Your task to perform on an android device: Add beats solo 3 to the cart on walmart, then select checkout. Image 0: 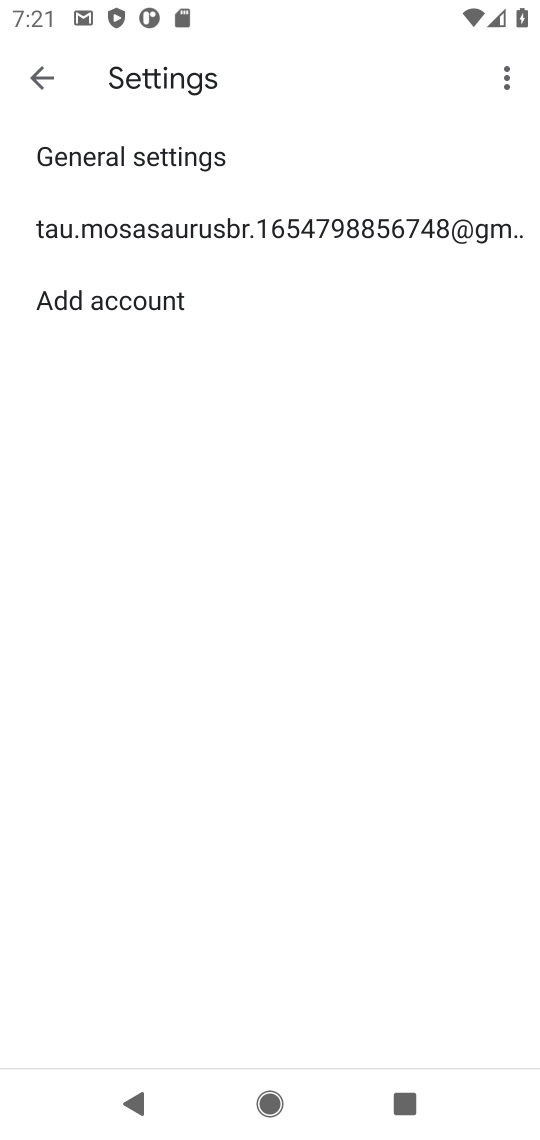
Step 0: press home button
Your task to perform on an android device: Add beats solo 3 to the cart on walmart, then select checkout. Image 1: 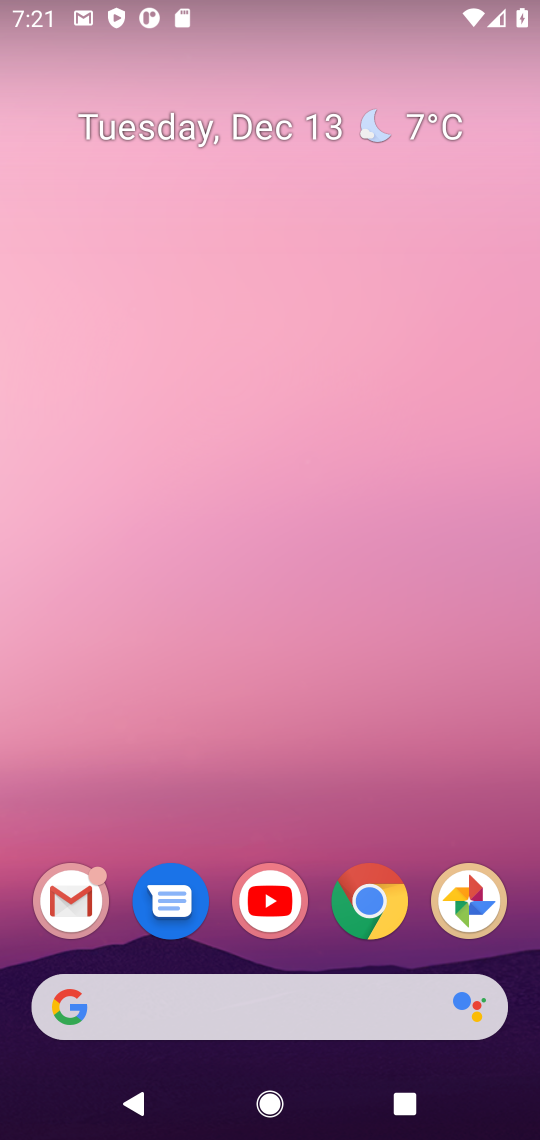
Step 1: click (372, 896)
Your task to perform on an android device: Add beats solo 3 to the cart on walmart, then select checkout. Image 2: 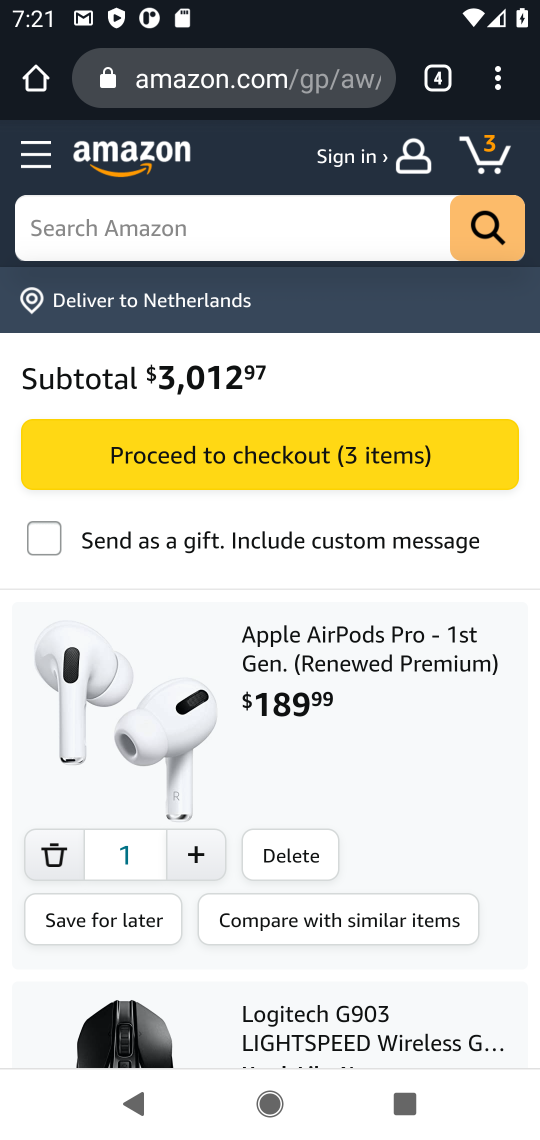
Step 2: click (435, 74)
Your task to perform on an android device: Add beats solo 3 to the cart on walmart, then select checkout. Image 3: 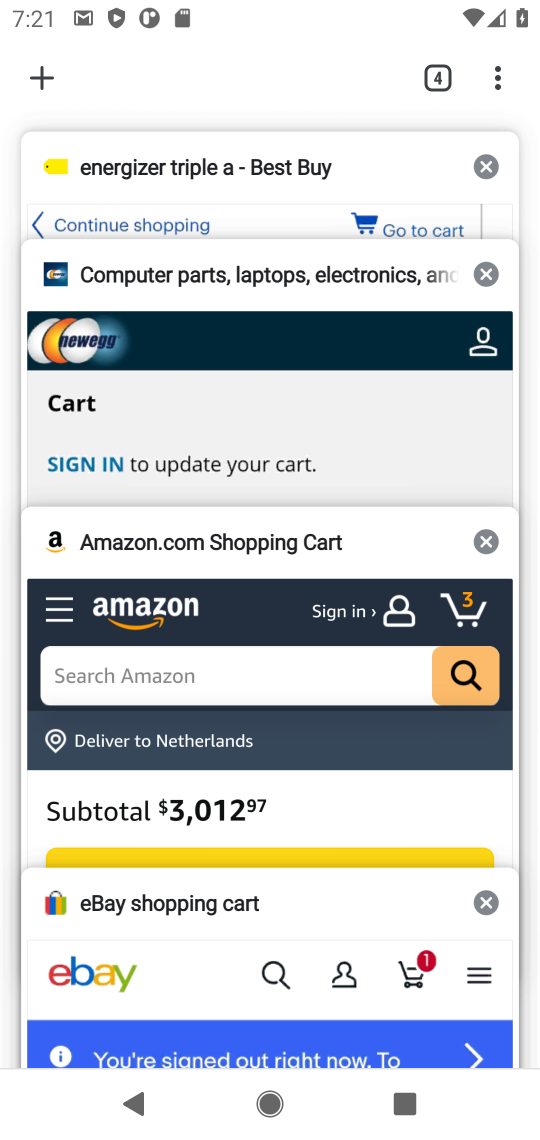
Step 3: click (33, 75)
Your task to perform on an android device: Add beats solo 3 to the cart on walmart, then select checkout. Image 4: 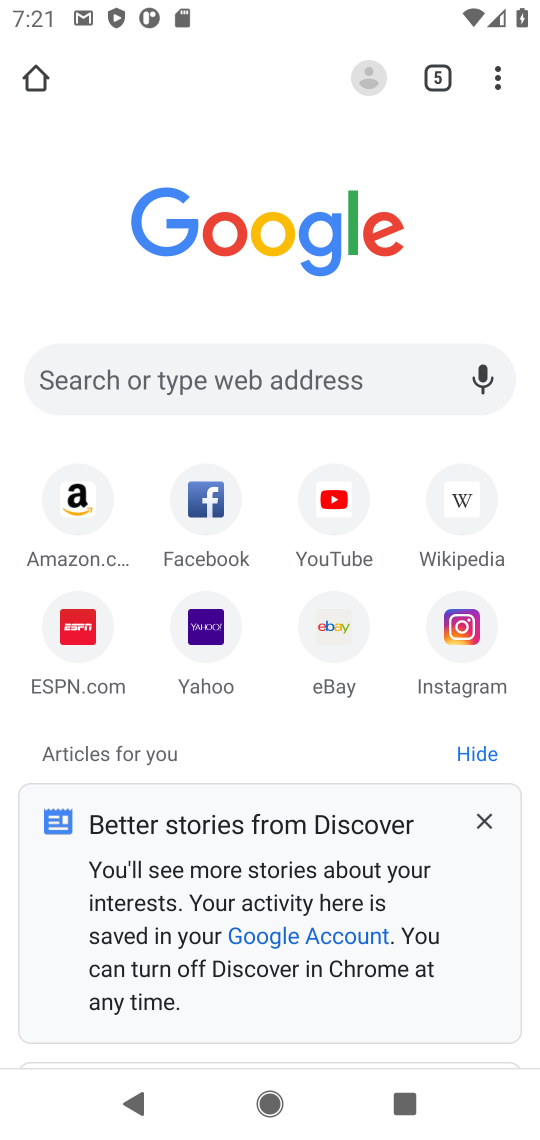
Step 4: click (193, 371)
Your task to perform on an android device: Add beats solo 3 to the cart on walmart, then select checkout. Image 5: 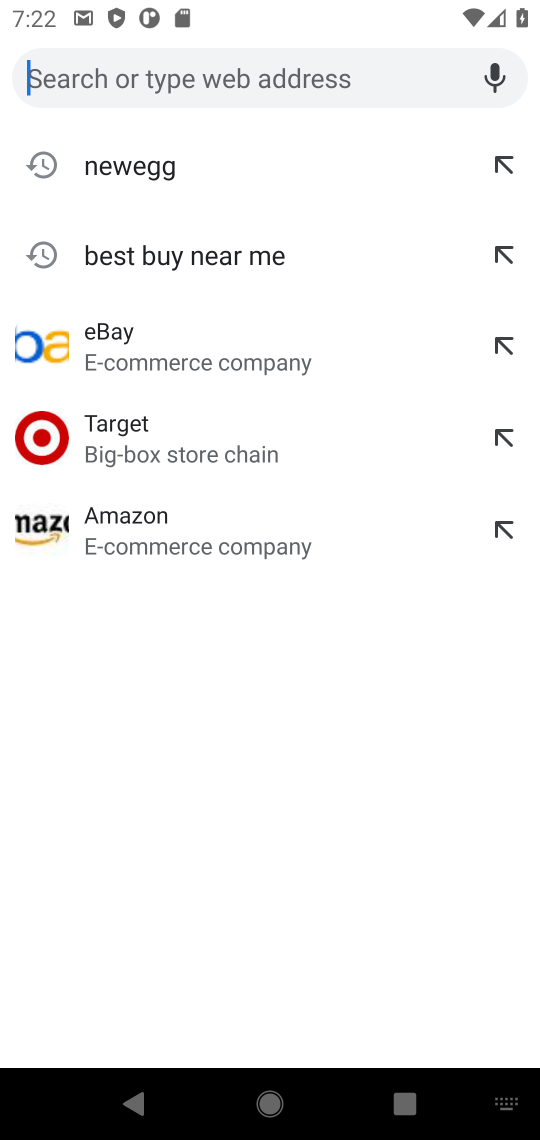
Step 5: type "walmart"
Your task to perform on an android device: Add beats solo 3 to the cart on walmart, then select checkout. Image 6: 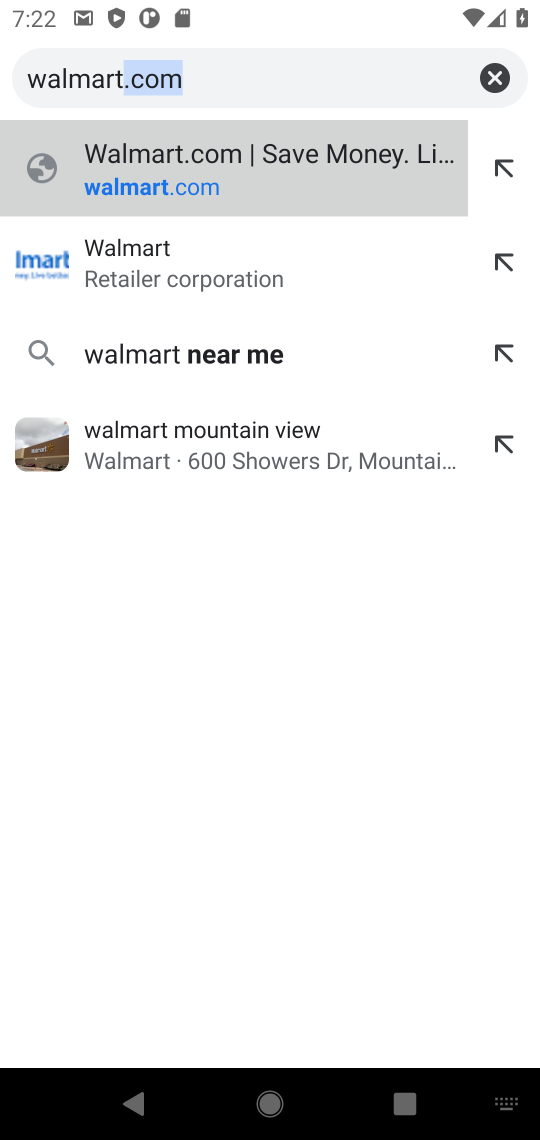
Step 6: click (215, 194)
Your task to perform on an android device: Add beats solo 3 to the cart on walmart, then select checkout. Image 7: 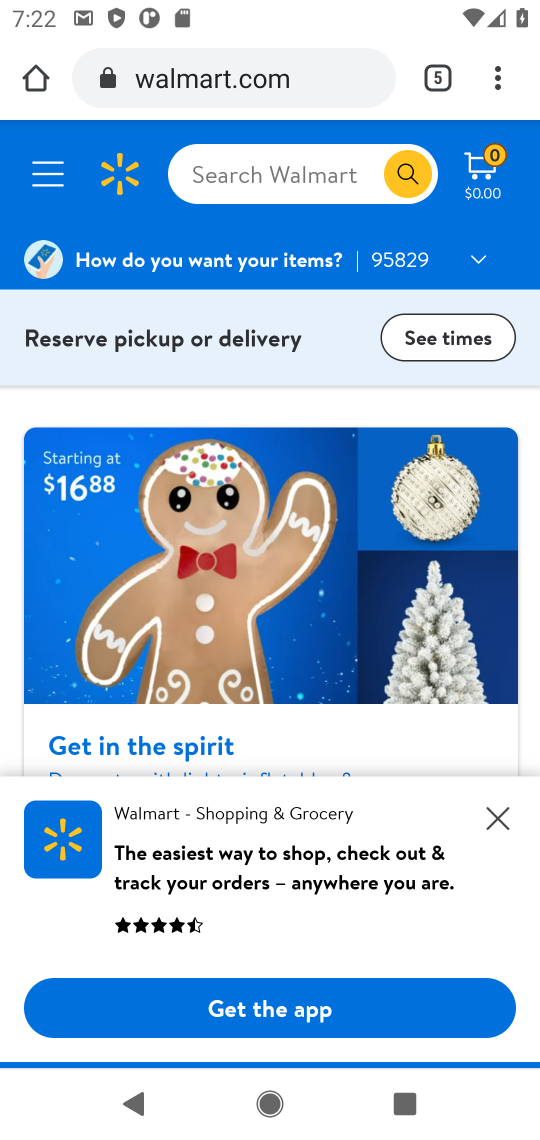
Step 7: click (310, 173)
Your task to perform on an android device: Add beats solo 3 to the cart on walmart, then select checkout. Image 8: 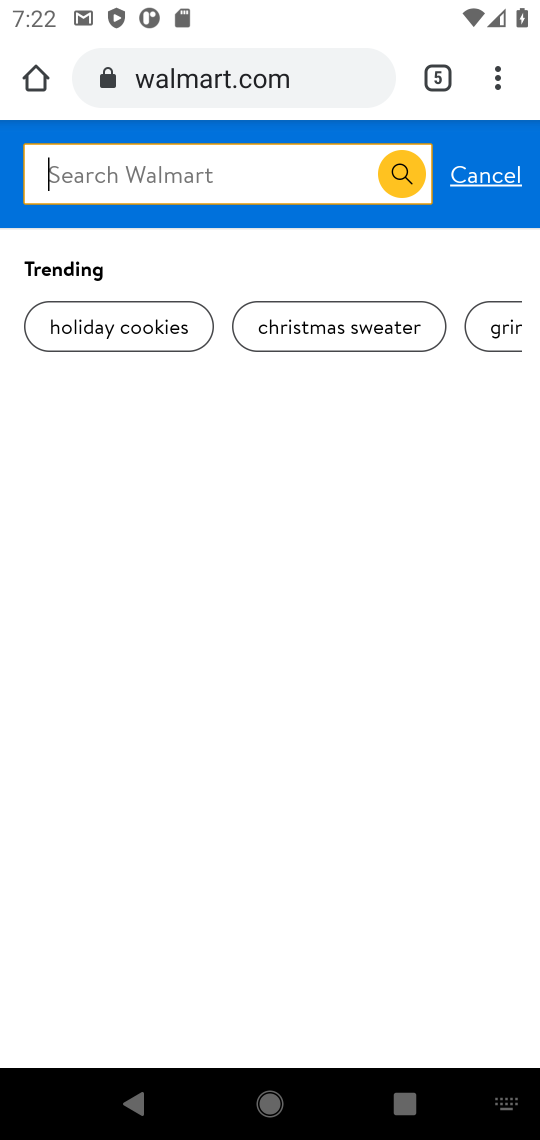
Step 8: type "beats solo 3"
Your task to perform on an android device: Add beats solo 3 to the cart on walmart, then select checkout. Image 9: 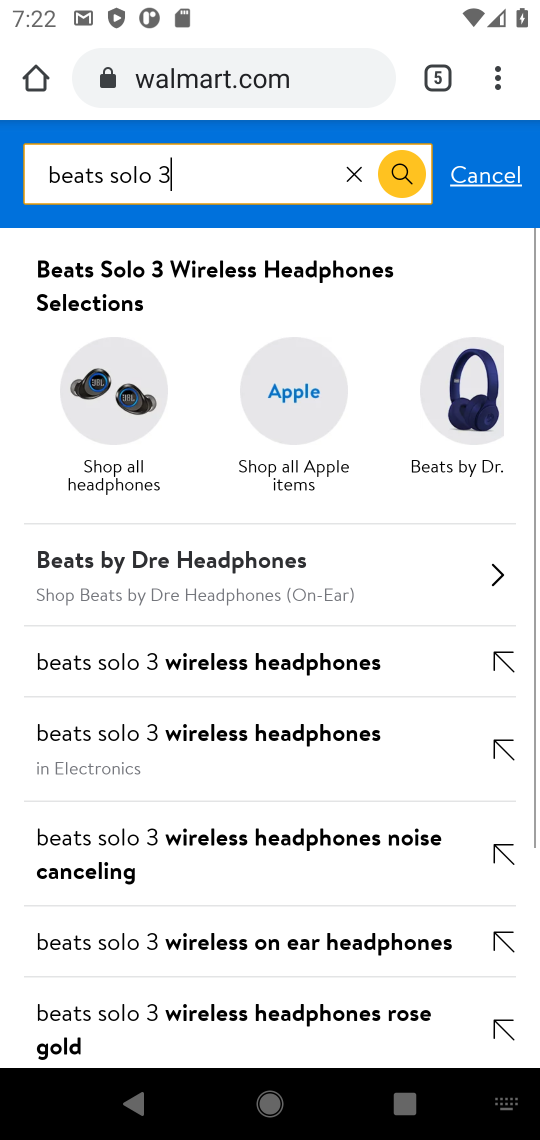
Step 9: click (395, 175)
Your task to perform on an android device: Add beats solo 3 to the cart on walmart, then select checkout. Image 10: 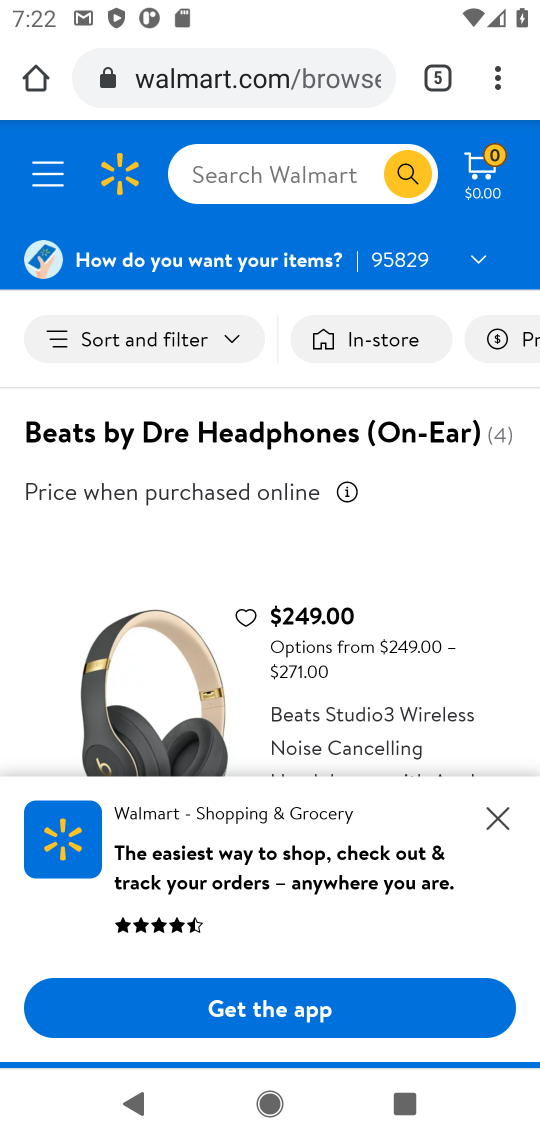
Step 10: click (501, 824)
Your task to perform on an android device: Add beats solo 3 to the cart on walmart, then select checkout. Image 11: 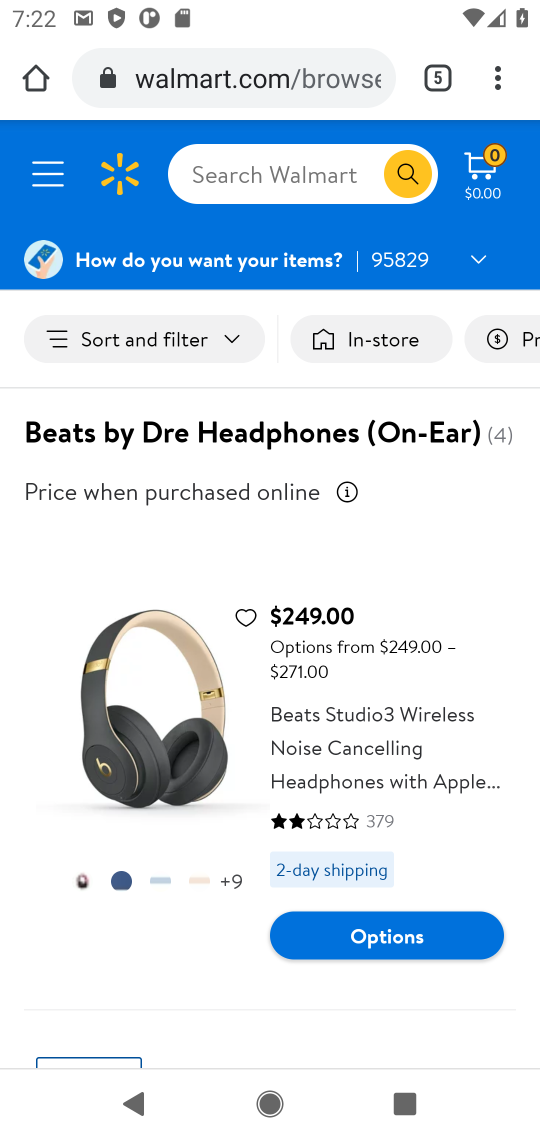
Step 11: drag from (485, 835) to (488, 453)
Your task to perform on an android device: Add beats solo 3 to the cart on walmart, then select checkout. Image 12: 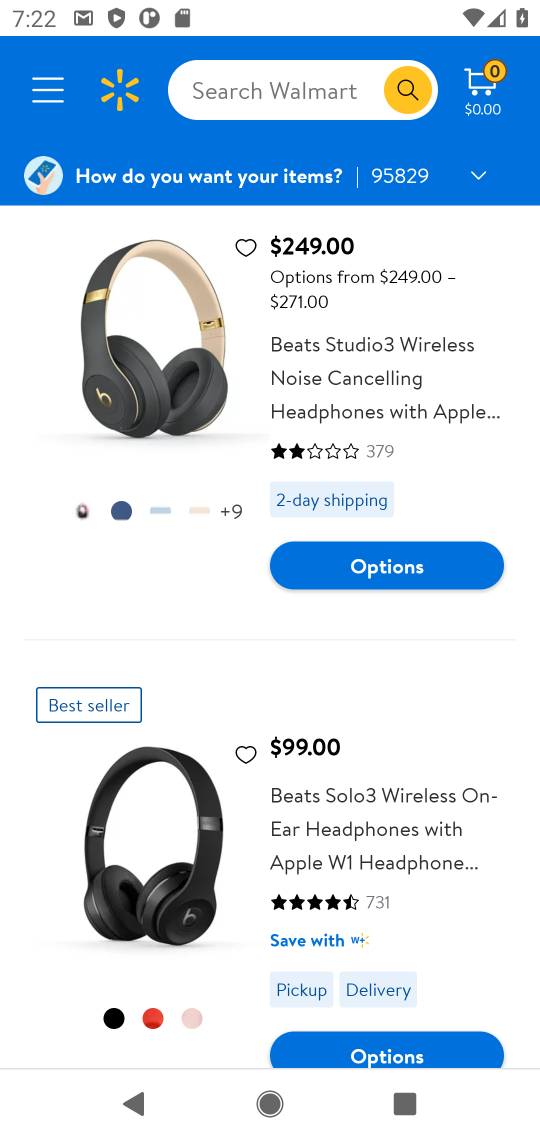
Step 12: click (397, 829)
Your task to perform on an android device: Add beats solo 3 to the cart on walmart, then select checkout. Image 13: 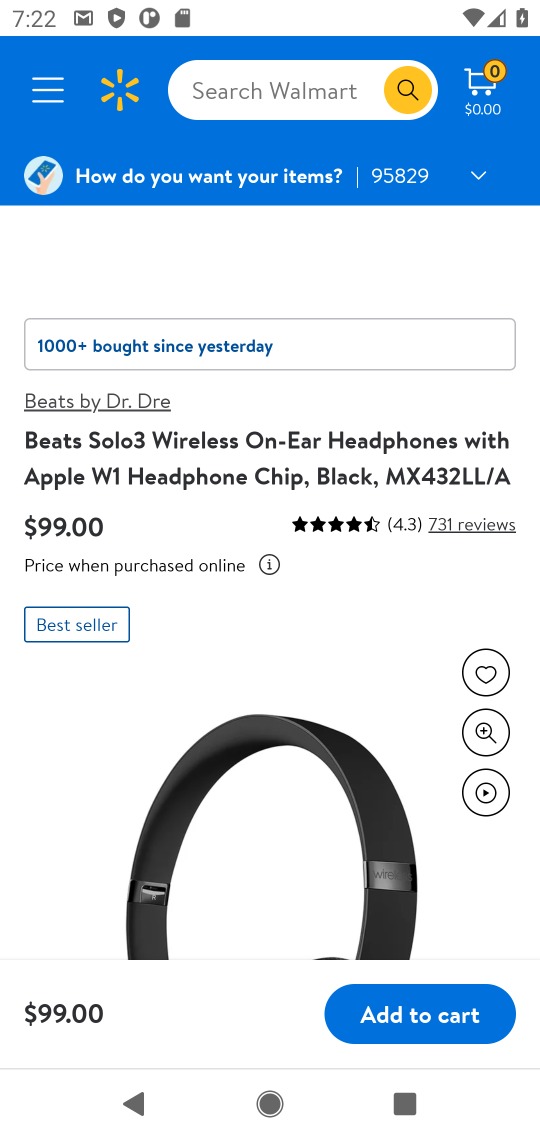
Step 13: click (451, 1004)
Your task to perform on an android device: Add beats solo 3 to the cart on walmart, then select checkout. Image 14: 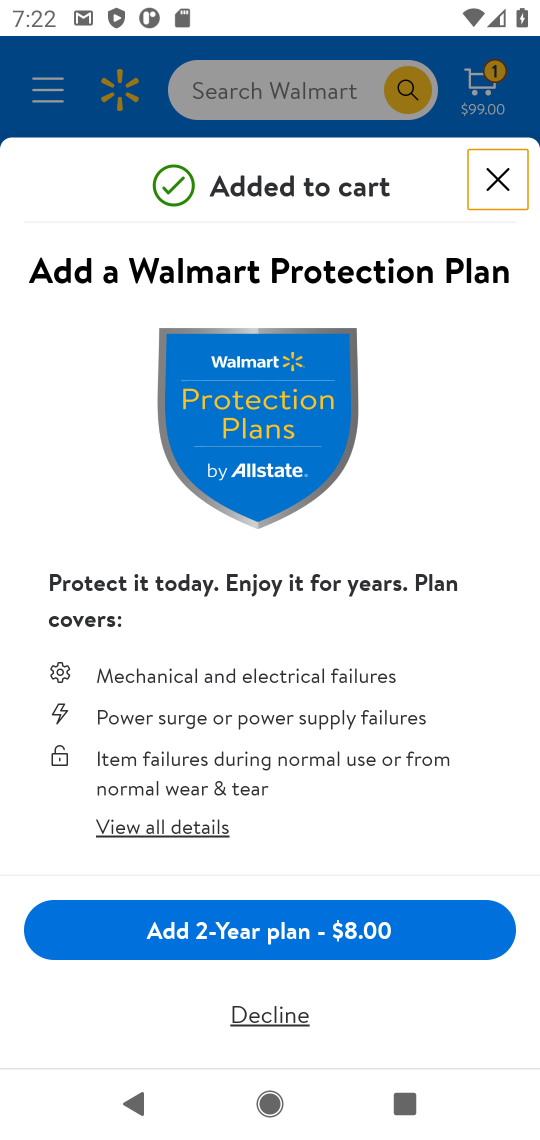
Step 14: click (485, 176)
Your task to perform on an android device: Add beats solo 3 to the cart on walmart, then select checkout. Image 15: 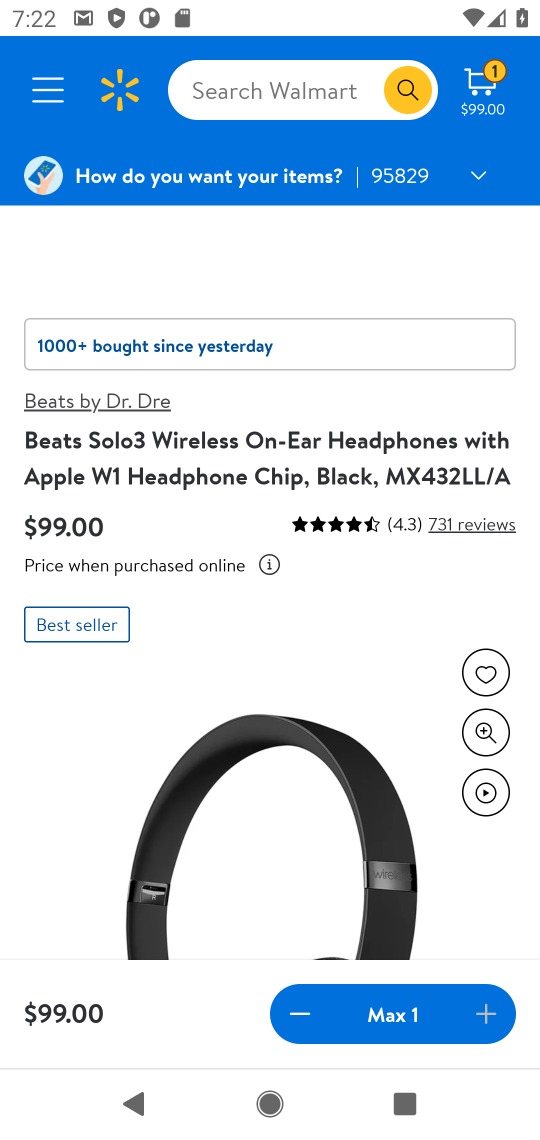
Step 15: click (478, 98)
Your task to perform on an android device: Add beats solo 3 to the cart on walmart, then select checkout. Image 16: 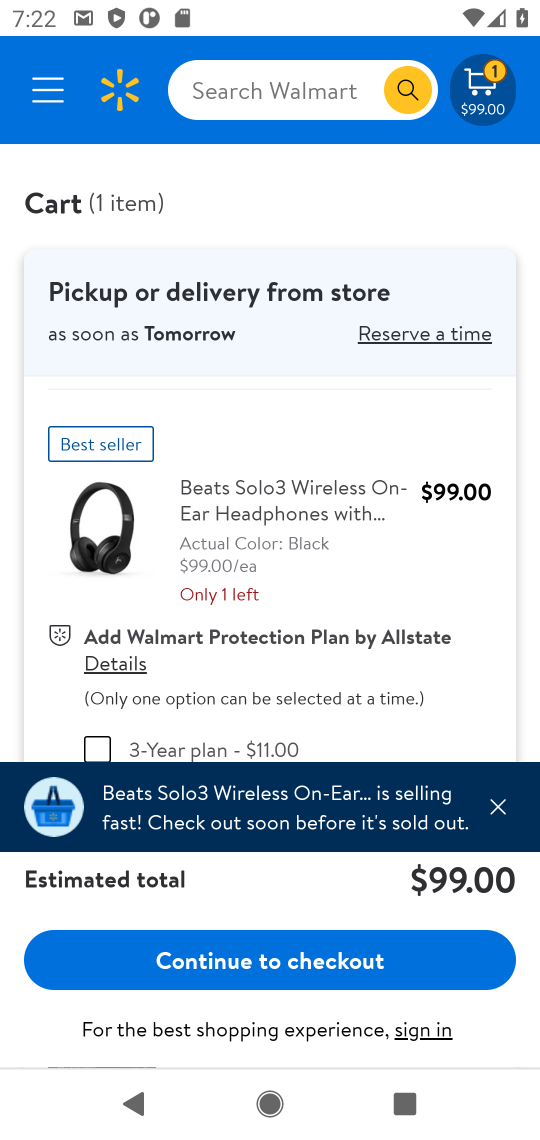
Step 16: click (352, 968)
Your task to perform on an android device: Add beats solo 3 to the cart on walmart, then select checkout. Image 17: 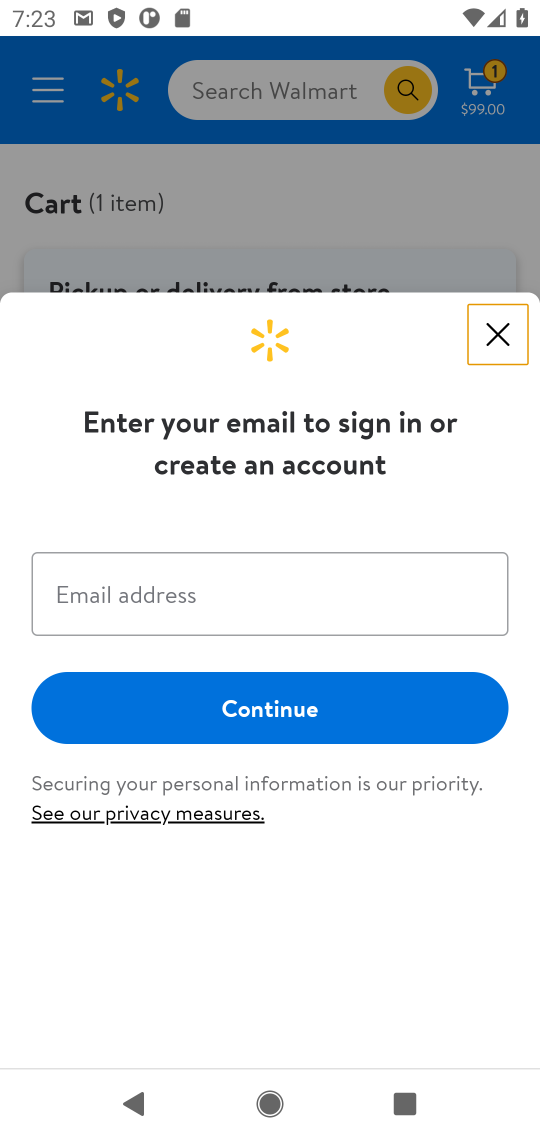
Step 17: task complete